Your task to perform on an android device: see creations saved in the google photos Image 0: 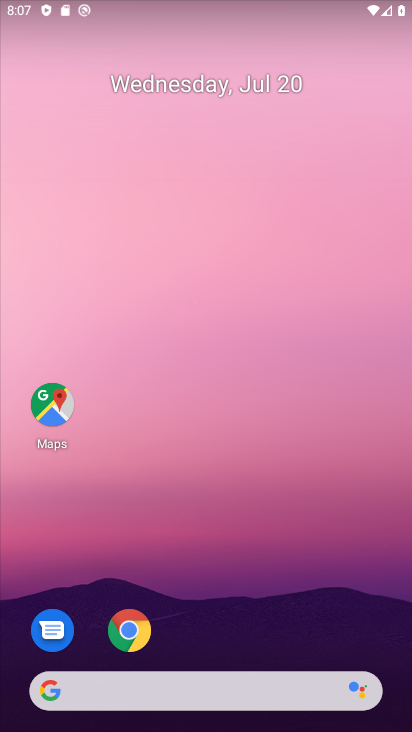
Step 0: drag from (396, 708) to (347, 31)
Your task to perform on an android device: see creations saved in the google photos Image 1: 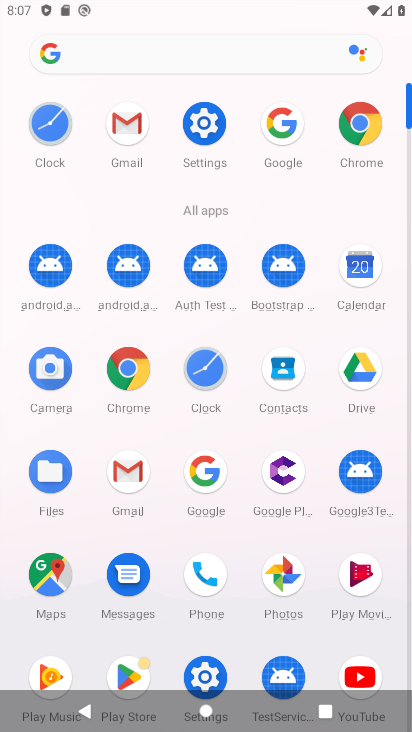
Step 1: click (272, 567)
Your task to perform on an android device: see creations saved in the google photos Image 2: 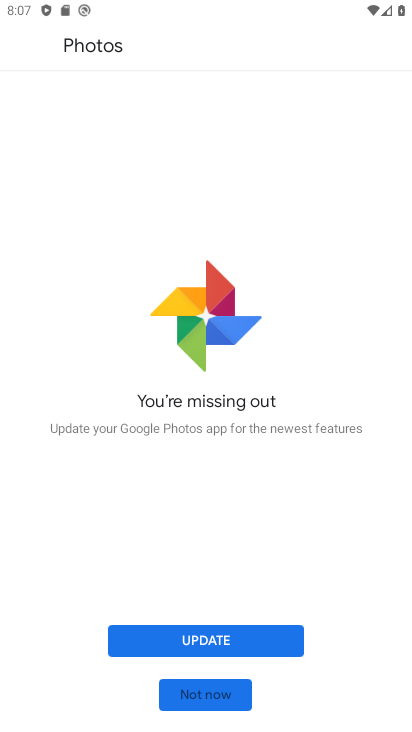
Step 2: click (215, 640)
Your task to perform on an android device: see creations saved in the google photos Image 3: 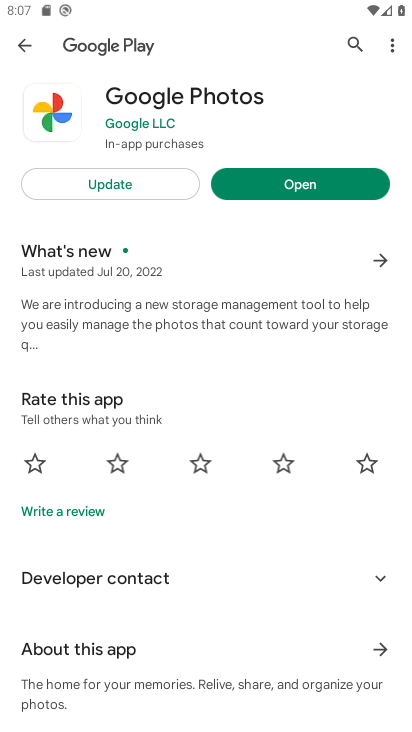
Step 3: click (285, 185)
Your task to perform on an android device: see creations saved in the google photos Image 4: 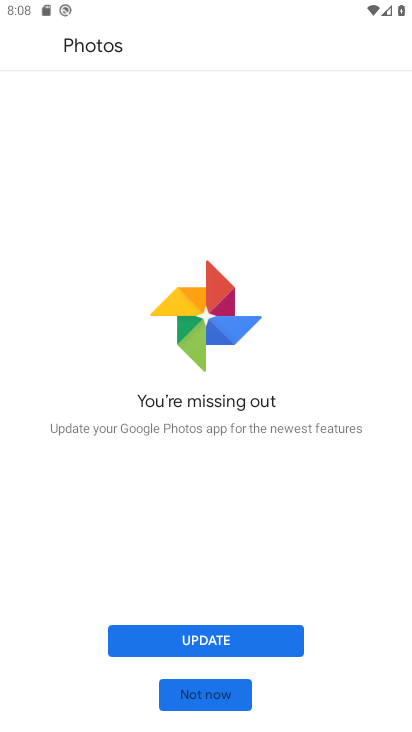
Step 4: click (188, 644)
Your task to perform on an android device: see creations saved in the google photos Image 5: 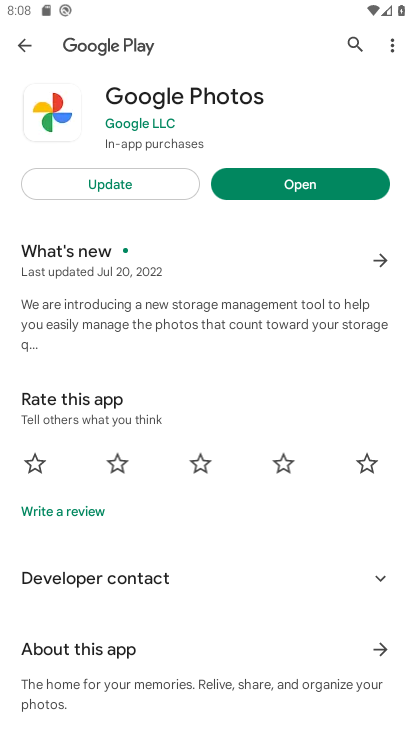
Step 5: click (109, 178)
Your task to perform on an android device: see creations saved in the google photos Image 6: 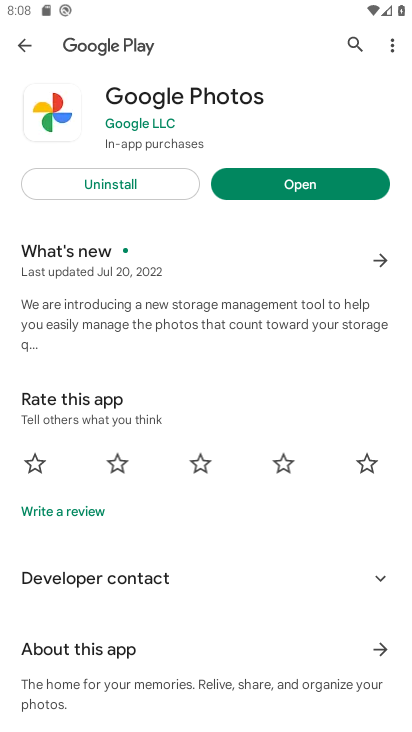
Step 6: click (254, 180)
Your task to perform on an android device: see creations saved in the google photos Image 7: 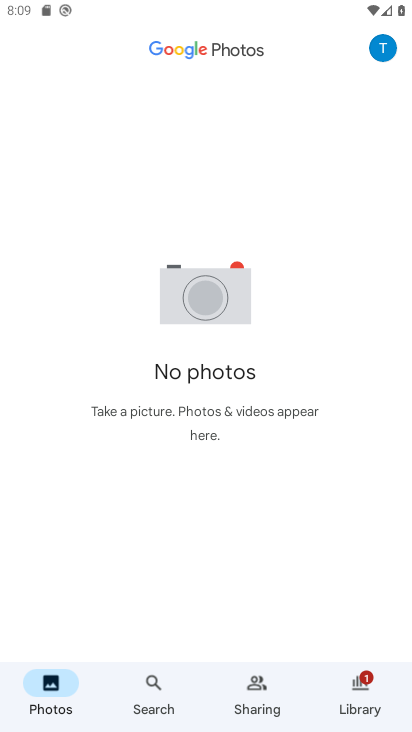
Step 7: task complete